Your task to perform on an android device: turn notification dots off Image 0: 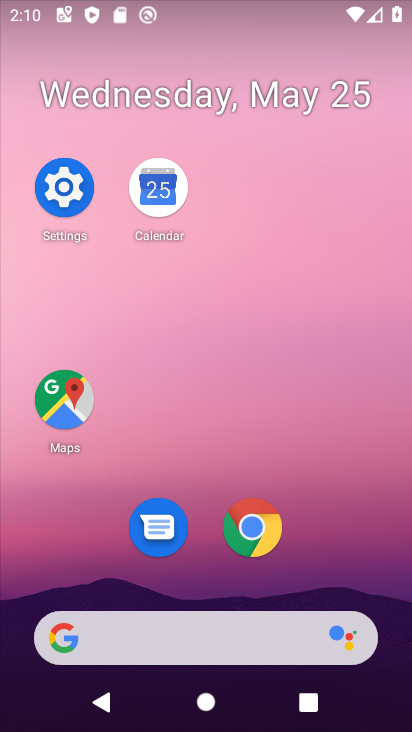
Step 0: click (92, 183)
Your task to perform on an android device: turn notification dots off Image 1: 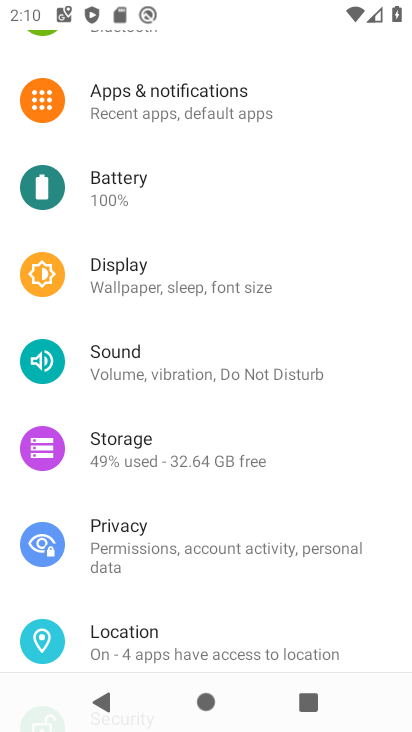
Step 1: click (217, 102)
Your task to perform on an android device: turn notification dots off Image 2: 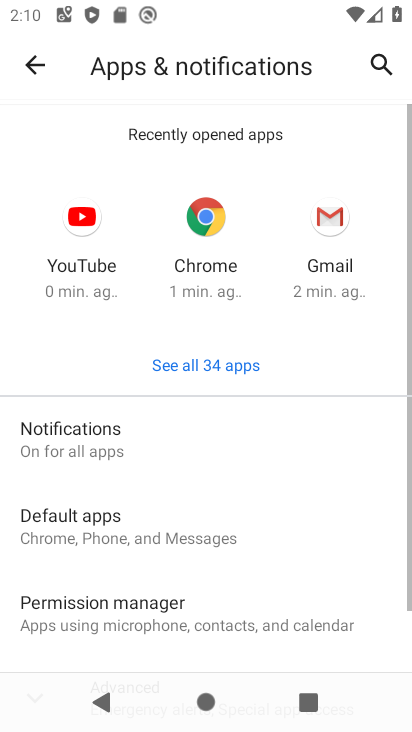
Step 2: click (159, 449)
Your task to perform on an android device: turn notification dots off Image 3: 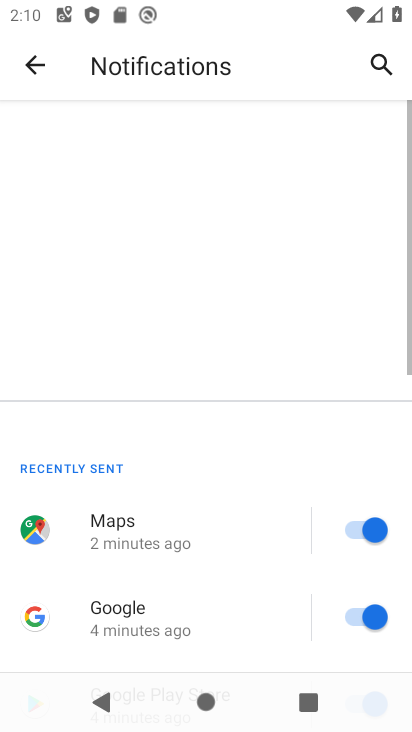
Step 3: drag from (189, 538) to (274, 55)
Your task to perform on an android device: turn notification dots off Image 4: 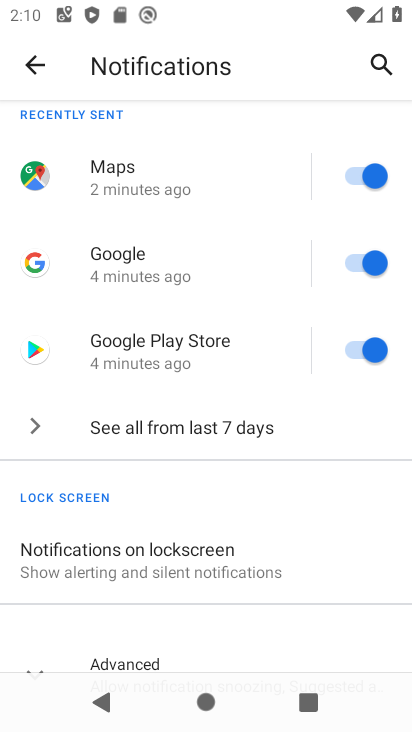
Step 4: drag from (239, 581) to (273, 237)
Your task to perform on an android device: turn notification dots off Image 5: 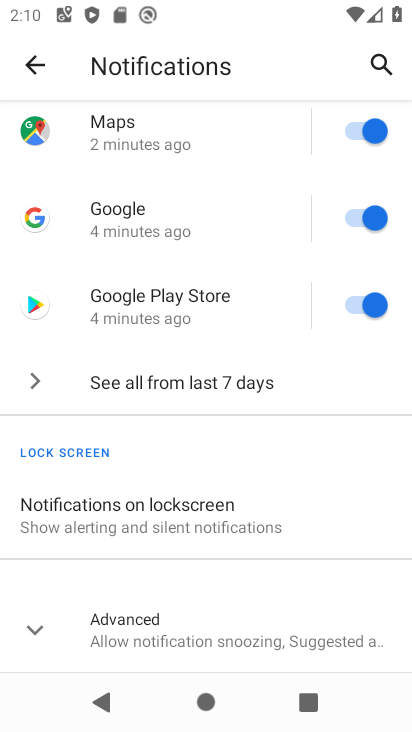
Step 5: click (194, 667)
Your task to perform on an android device: turn notification dots off Image 6: 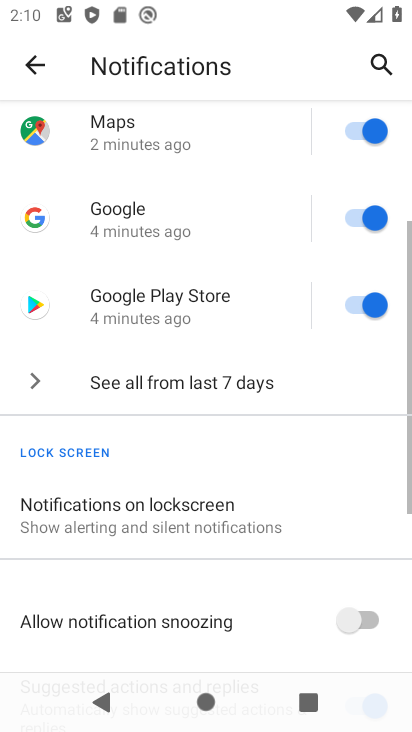
Step 6: drag from (194, 667) to (243, 282)
Your task to perform on an android device: turn notification dots off Image 7: 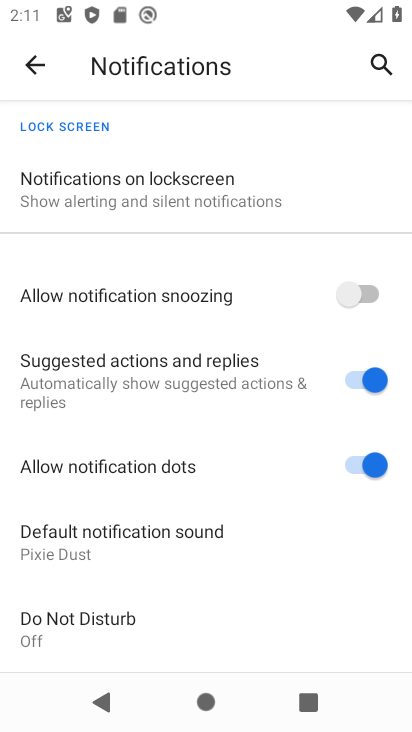
Step 7: click (355, 469)
Your task to perform on an android device: turn notification dots off Image 8: 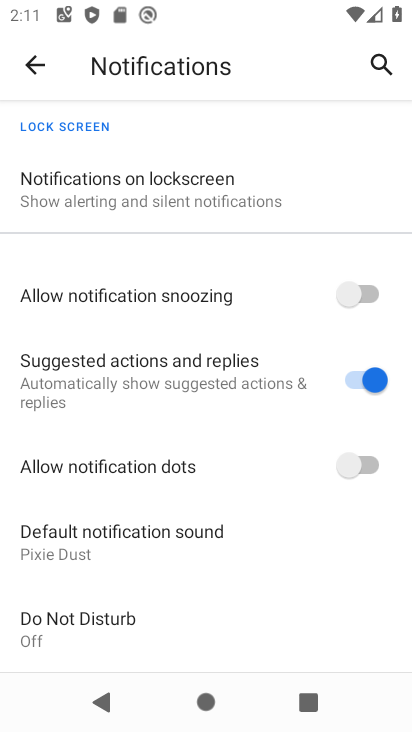
Step 8: task complete